Your task to perform on an android device: Go to Maps Image 0: 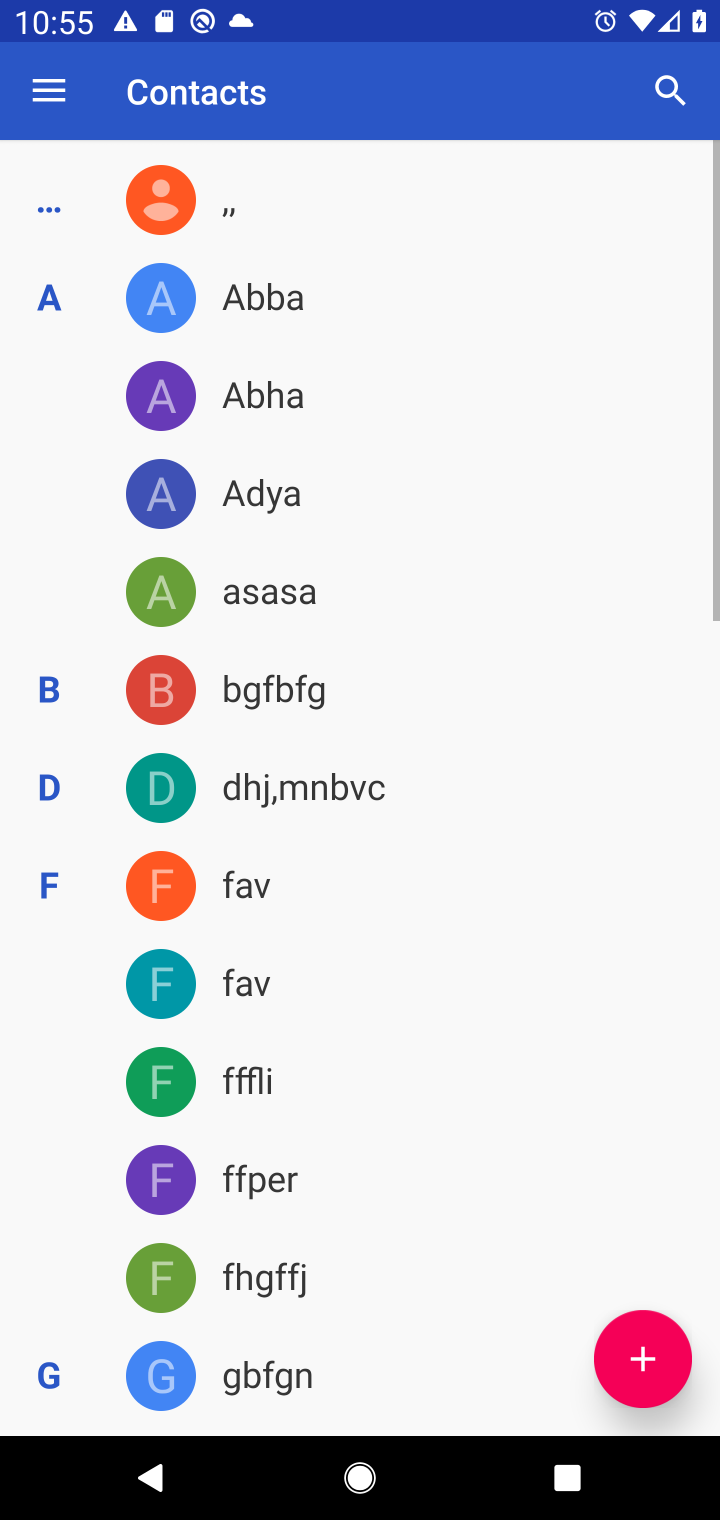
Step 0: press home button
Your task to perform on an android device: Go to Maps Image 1: 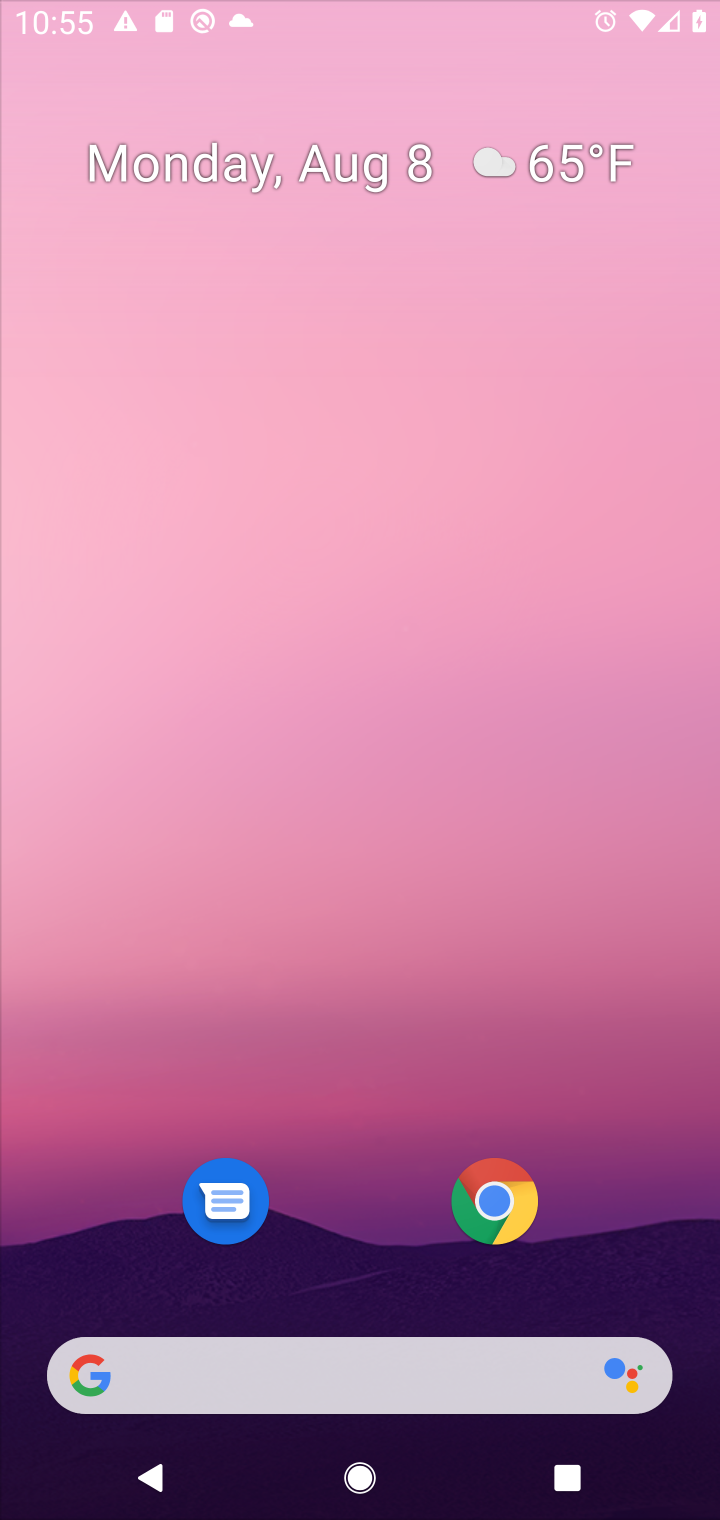
Step 1: press home button
Your task to perform on an android device: Go to Maps Image 2: 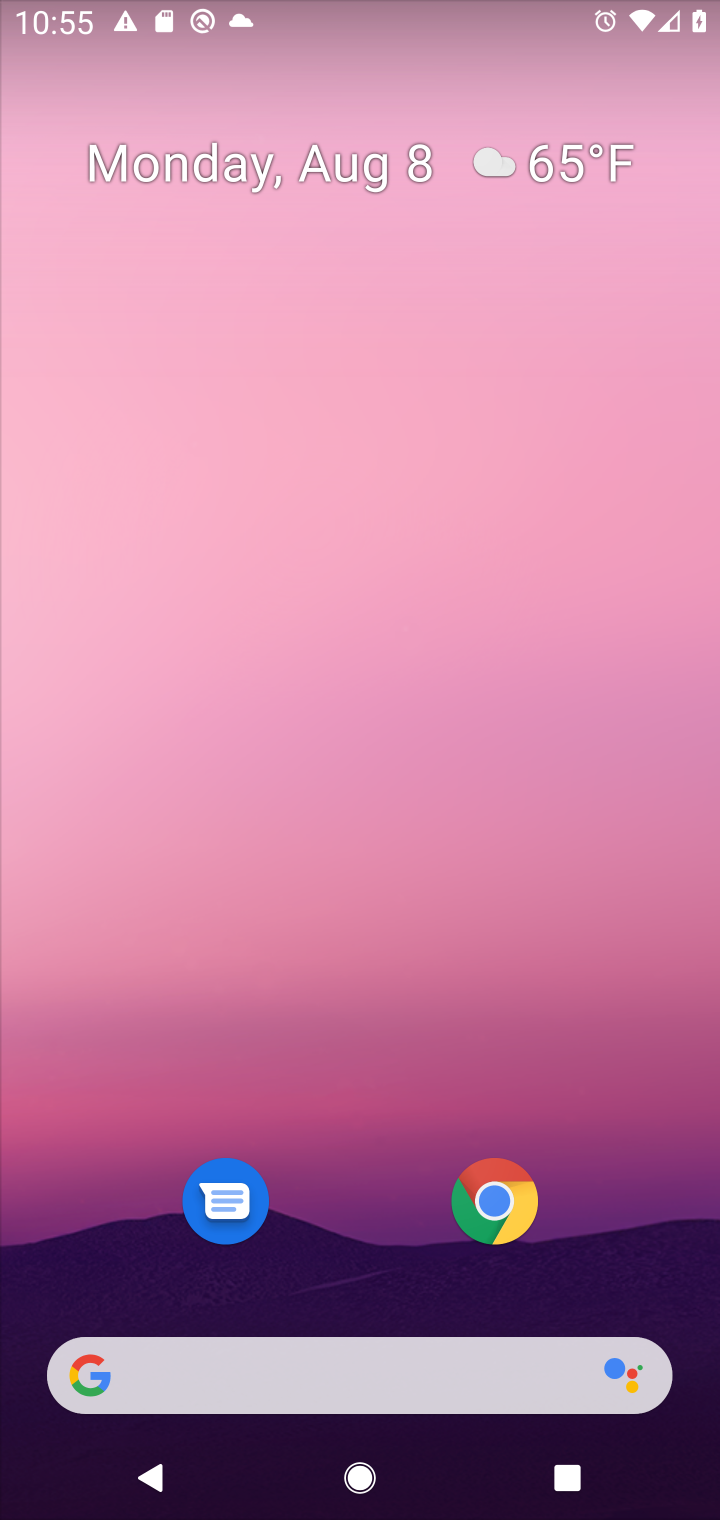
Step 2: drag from (357, 1179) to (388, 267)
Your task to perform on an android device: Go to Maps Image 3: 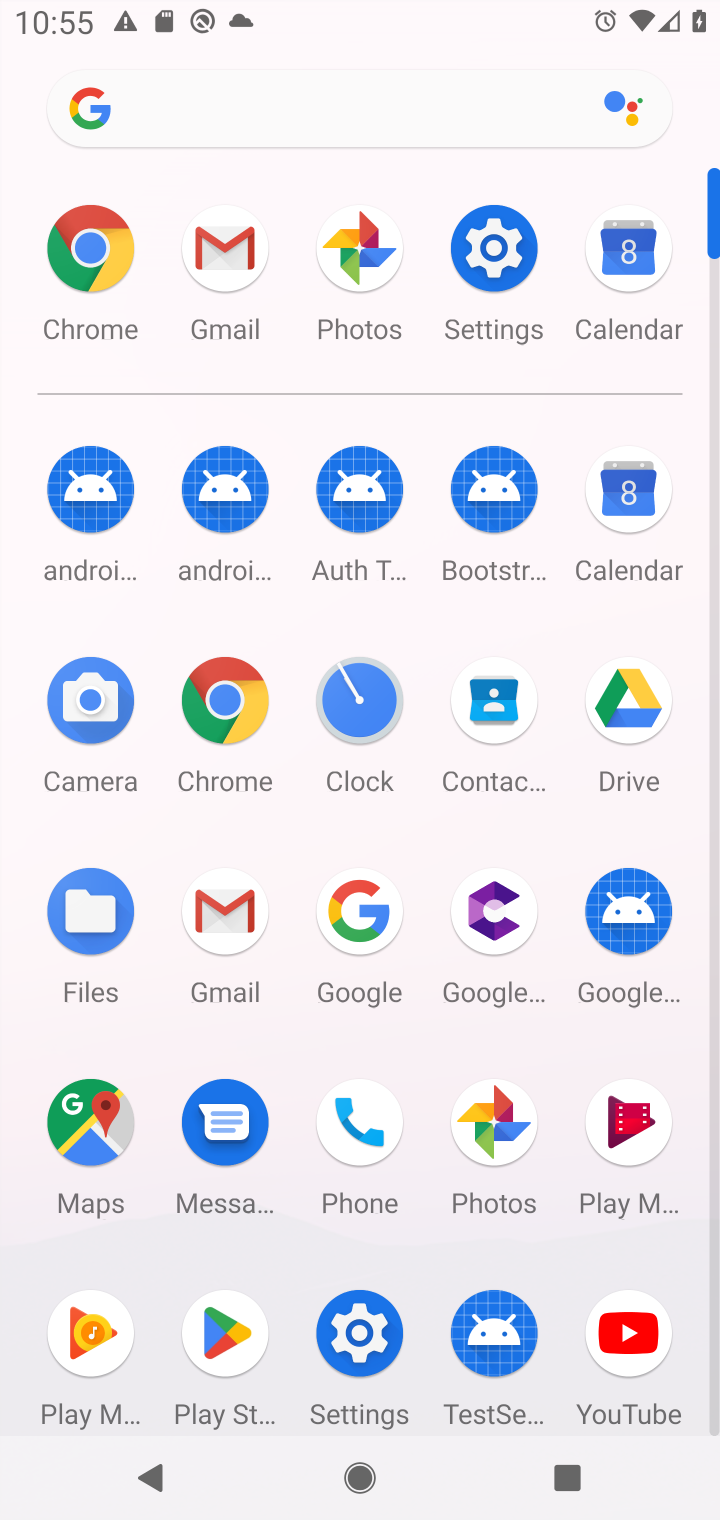
Step 3: click (97, 1128)
Your task to perform on an android device: Go to Maps Image 4: 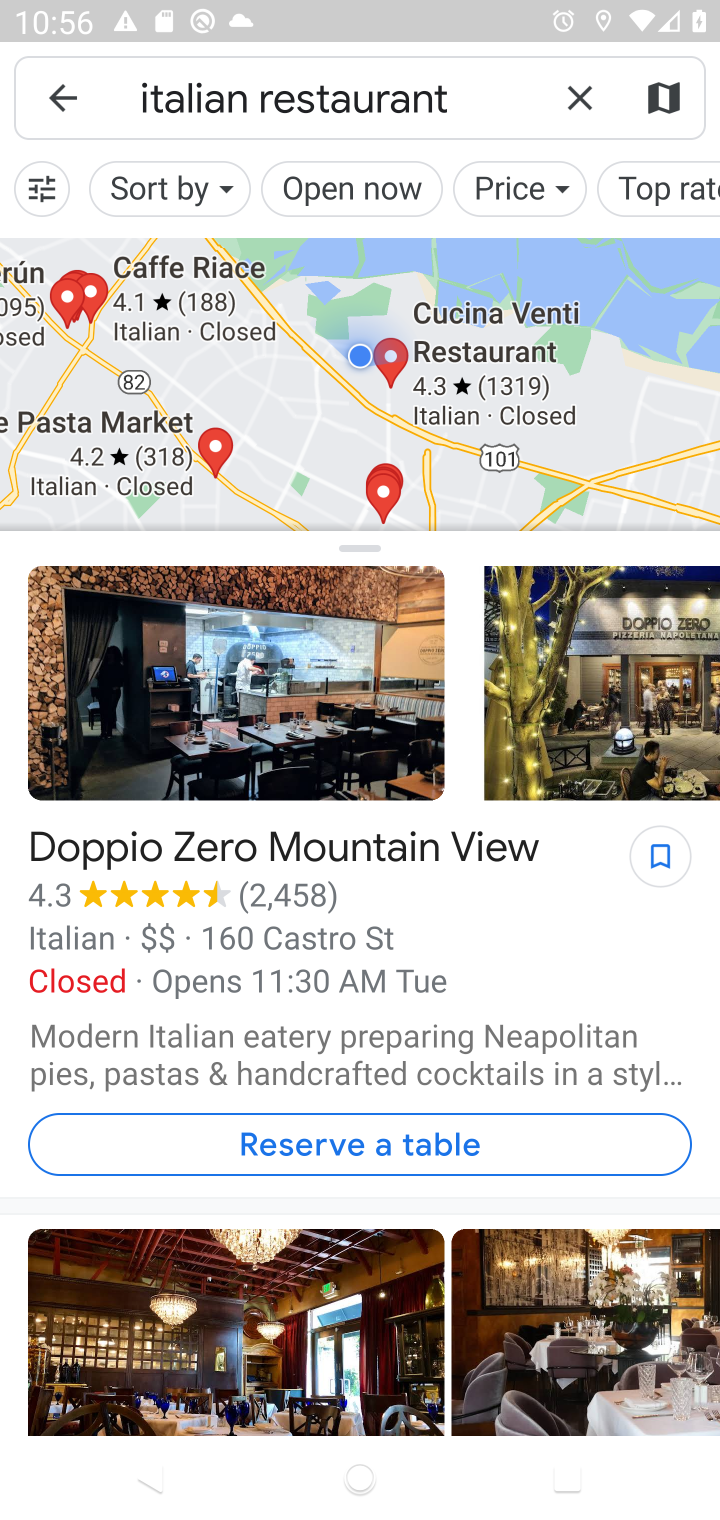
Step 4: task complete